Your task to perform on an android device: clear all cookies in the chrome app Image 0: 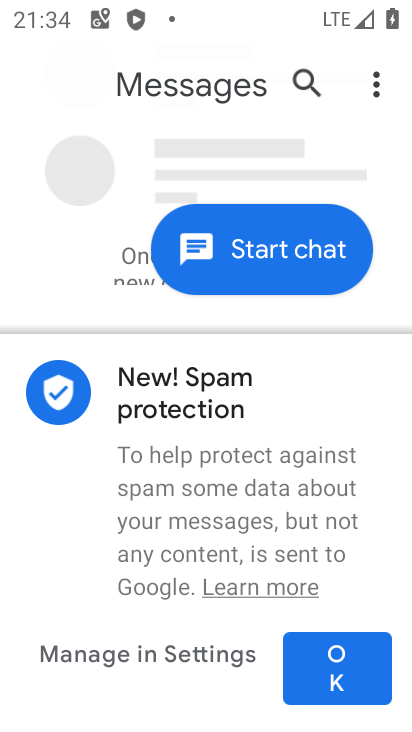
Step 0: press back button
Your task to perform on an android device: clear all cookies in the chrome app Image 1: 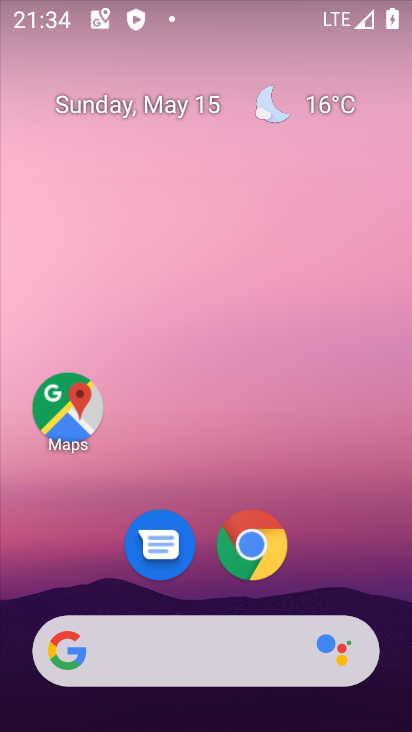
Step 1: click (252, 544)
Your task to perform on an android device: clear all cookies in the chrome app Image 2: 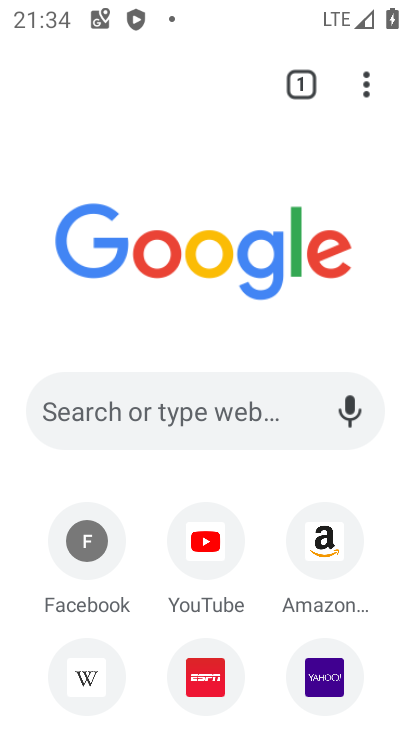
Step 2: click (366, 82)
Your task to perform on an android device: clear all cookies in the chrome app Image 3: 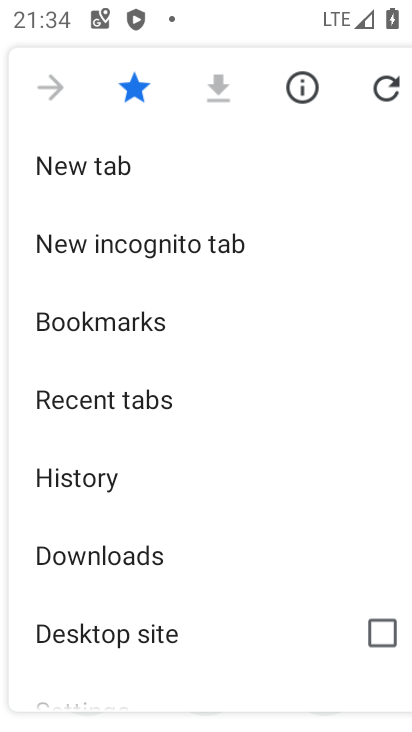
Step 3: drag from (186, 512) to (236, 400)
Your task to perform on an android device: clear all cookies in the chrome app Image 4: 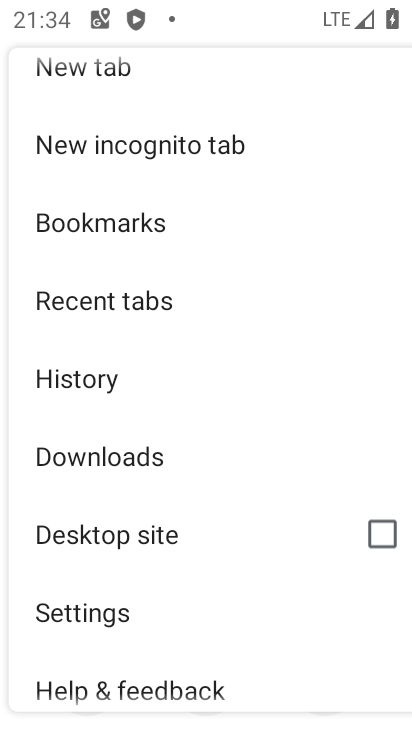
Step 4: drag from (172, 600) to (192, 502)
Your task to perform on an android device: clear all cookies in the chrome app Image 5: 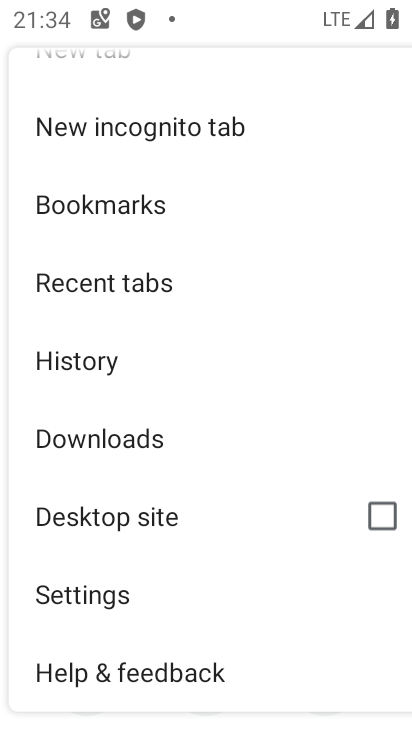
Step 5: click (87, 599)
Your task to perform on an android device: clear all cookies in the chrome app Image 6: 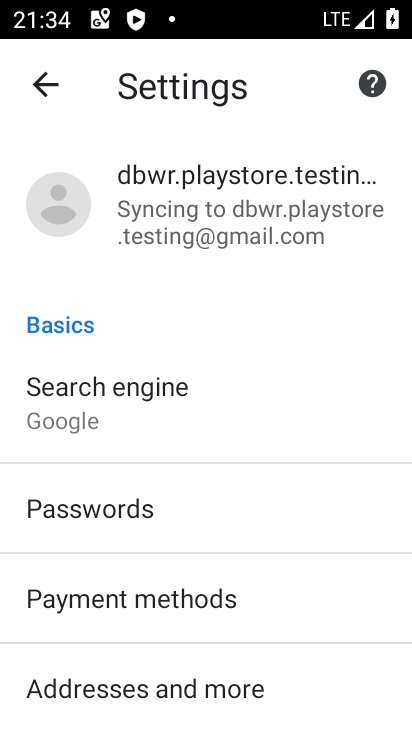
Step 6: drag from (109, 652) to (179, 539)
Your task to perform on an android device: clear all cookies in the chrome app Image 7: 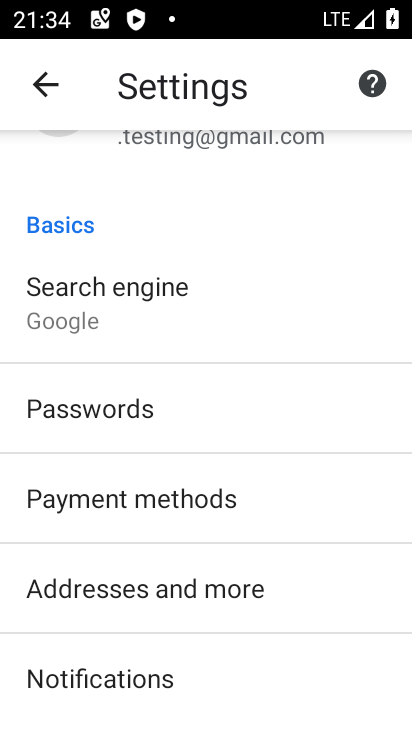
Step 7: drag from (108, 649) to (184, 524)
Your task to perform on an android device: clear all cookies in the chrome app Image 8: 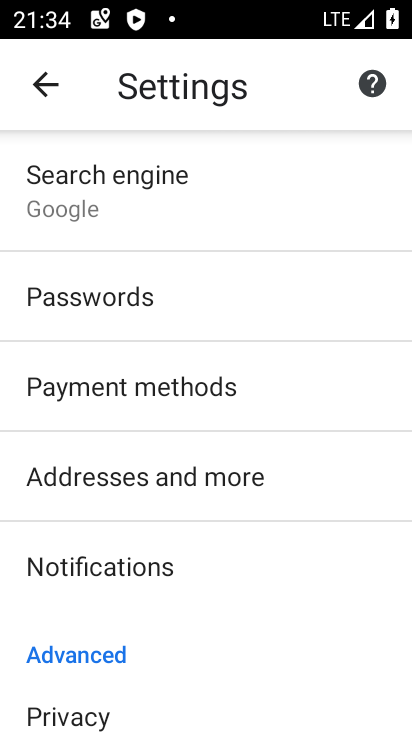
Step 8: drag from (117, 624) to (206, 501)
Your task to perform on an android device: clear all cookies in the chrome app Image 9: 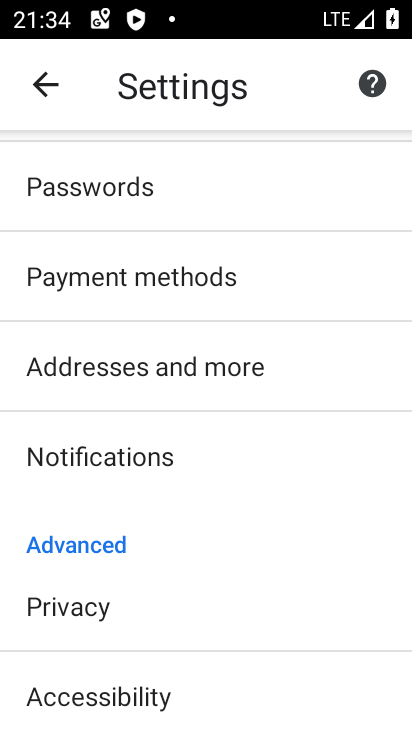
Step 9: click (89, 606)
Your task to perform on an android device: clear all cookies in the chrome app Image 10: 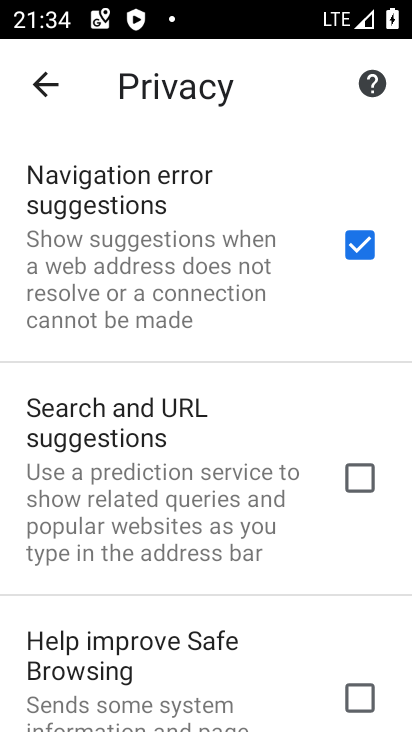
Step 10: drag from (187, 611) to (230, 452)
Your task to perform on an android device: clear all cookies in the chrome app Image 11: 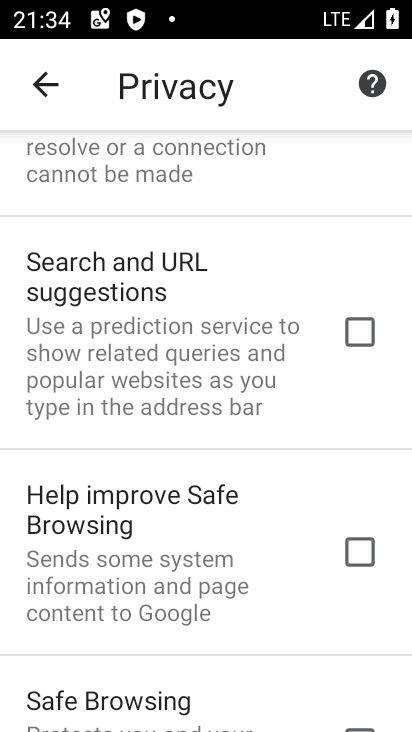
Step 11: drag from (144, 671) to (230, 467)
Your task to perform on an android device: clear all cookies in the chrome app Image 12: 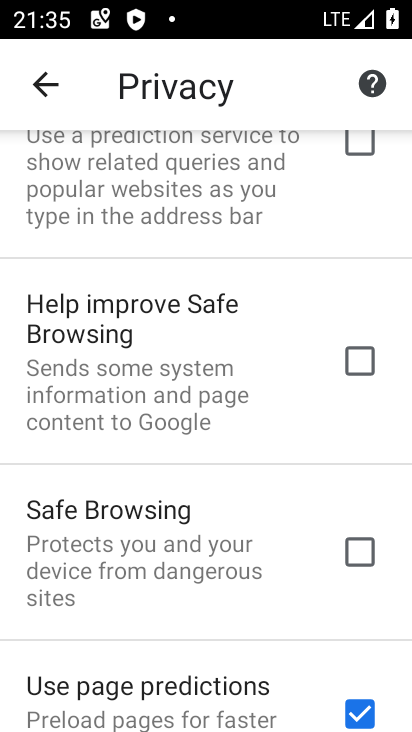
Step 12: drag from (148, 653) to (260, 404)
Your task to perform on an android device: clear all cookies in the chrome app Image 13: 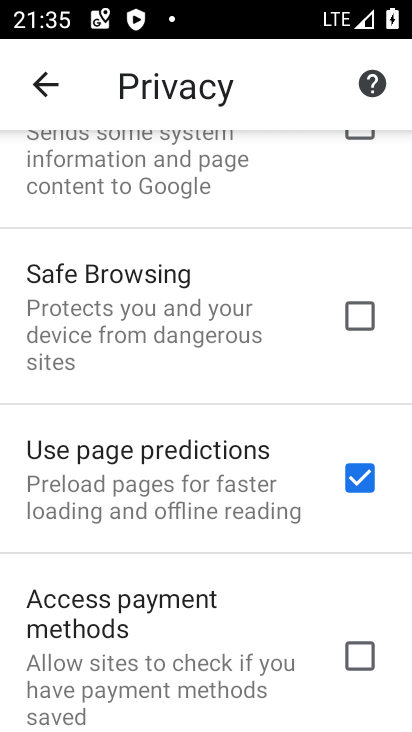
Step 13: drag from (165, 572) to (243, 377)
Your task to perform on an android device: clear all cookies in the chrome app Image 14: 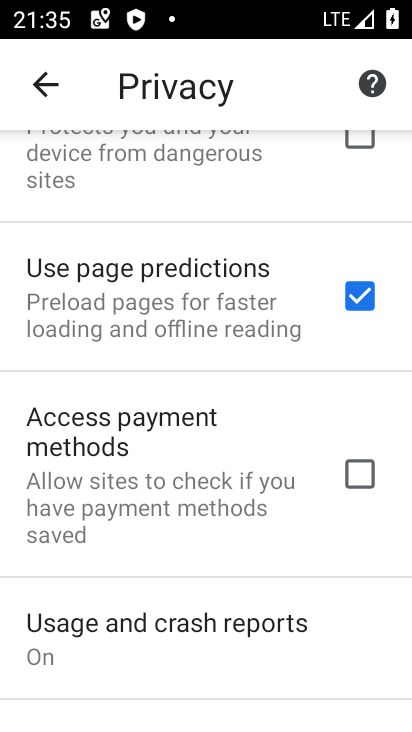
Step 14: drag from (126, 591) to (228, 400)
Your task to perform on an android device: clear all cookies in the chrome app Image 15: 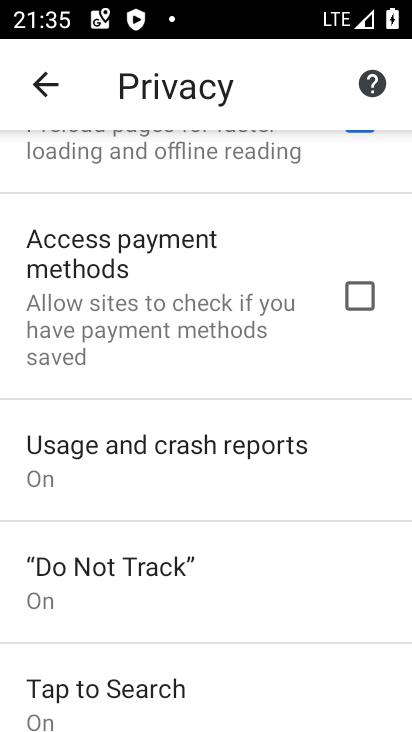
Step 15: drag from (106, 625) to (223, 449)
Your task to perform on an android device: clear all cookies in the chrome app Image 16: 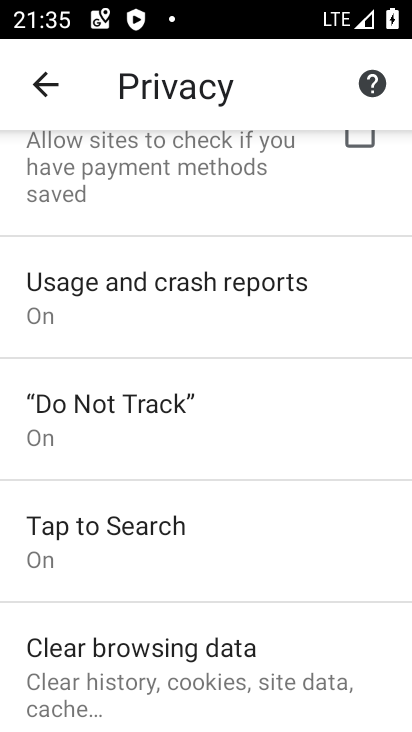
Step 16: click (113, 649)
Your task to perform on an android device: clear all cookies in the chrome app Image 17: 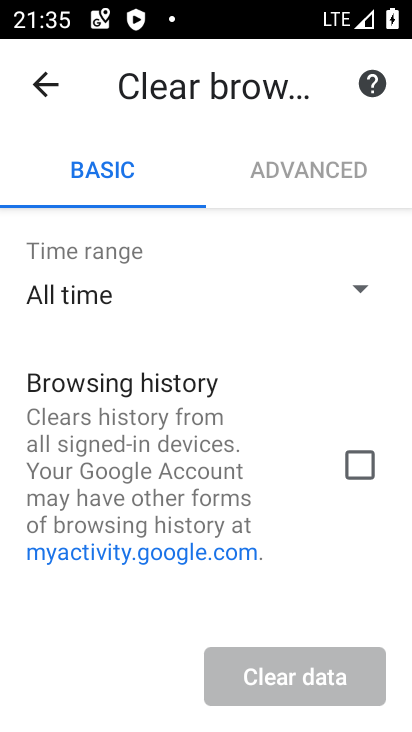
Step 17: drag from (279, 511) to (298, 366)
Your task to perform on an android device: clear all cookies in the chrome app Image 18: 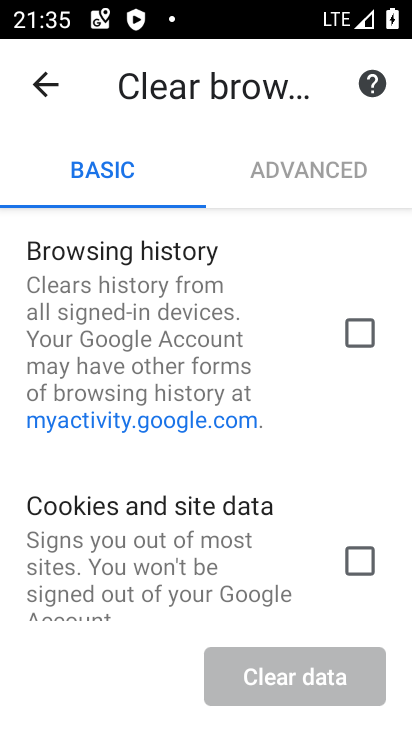
Step 18: click (357, 557)
Your task to perform on an android device: clear all cookies in the chrome app Image 19: 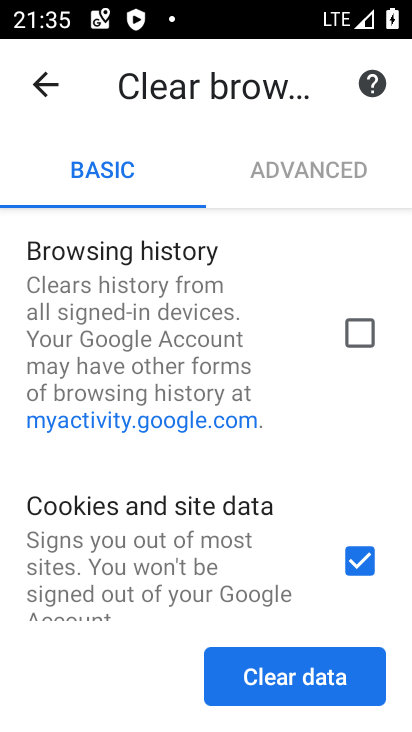
Step 19: click (283, 673)
Your task to perform on an android device: clear all cookies in the chrome app Image 20: 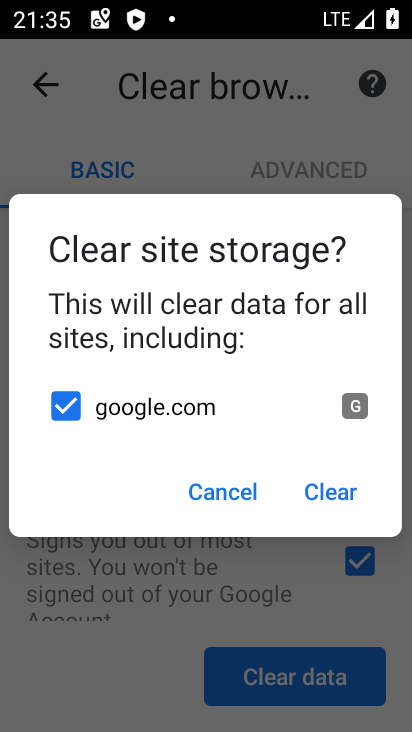
Step 20: click (332, 492)
Your task to perform on an android device: clear all cookies in the chrome app Image 21: 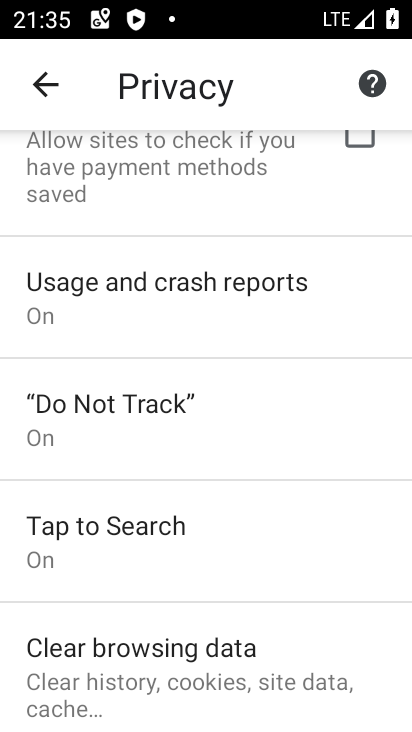
Step 21: task complete